Your task to perform on an android device: Show me popular videos on Youtube Image 0: 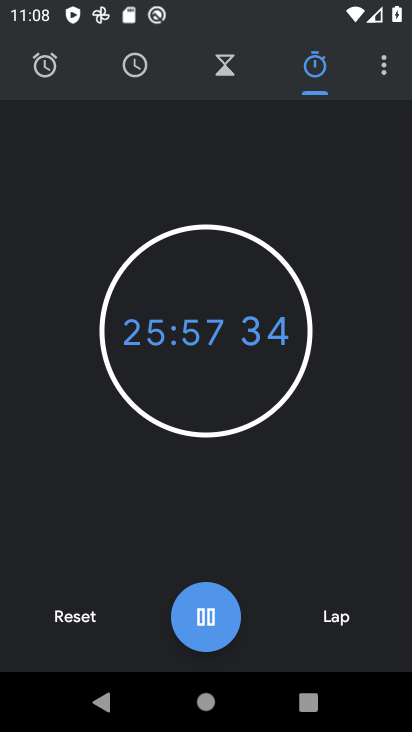
Step 0: press home button
Your task to perform on an android device: Show me popular videos on Youtube Image 1: 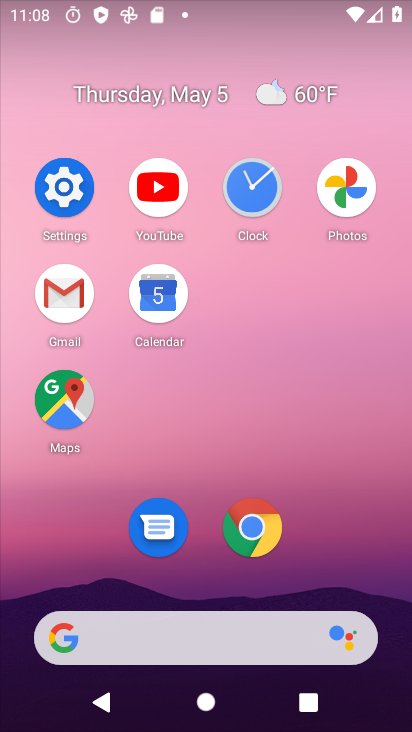
Step 1: click (167, 185)
Your task to perform on an android device: Show me popular videos on Youtube Image 2: 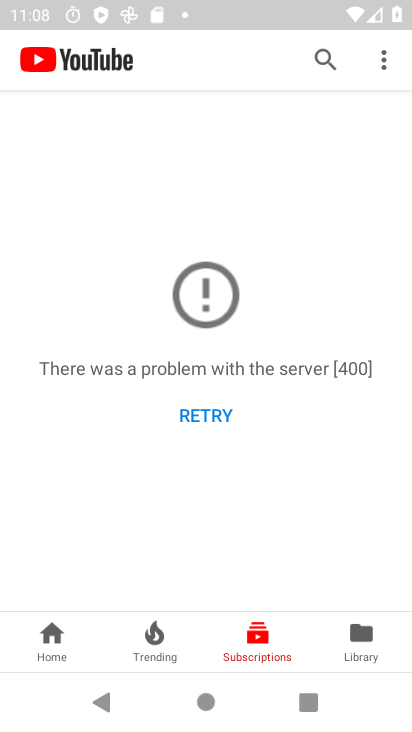
Step 2: click (203, 414)
Your task to perform on an android device: Show me popular videos on Youtube Image 3: 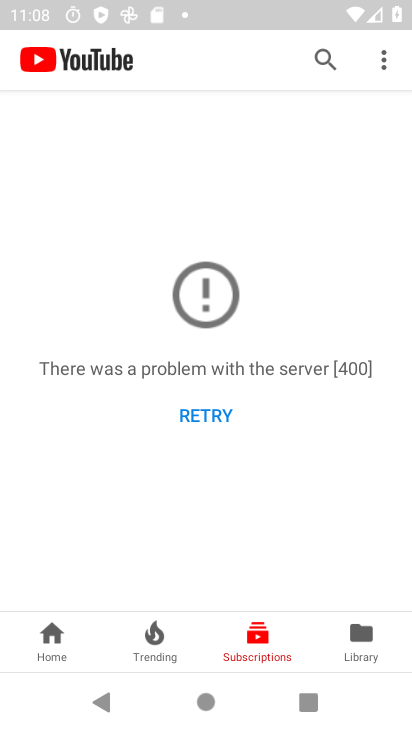
Step 3: task complete